Your task to perform on an android device: turn on the 12-hour format for clock Image 0: 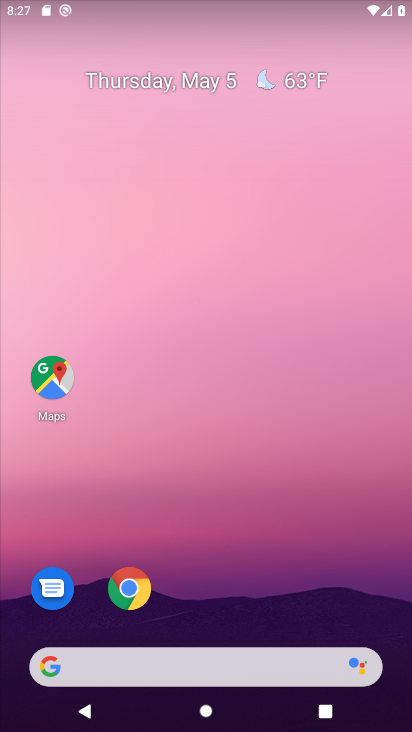
Step 0: press home button
Your task to perform on an android device: turn on the 12-hour format for clock Image 1: 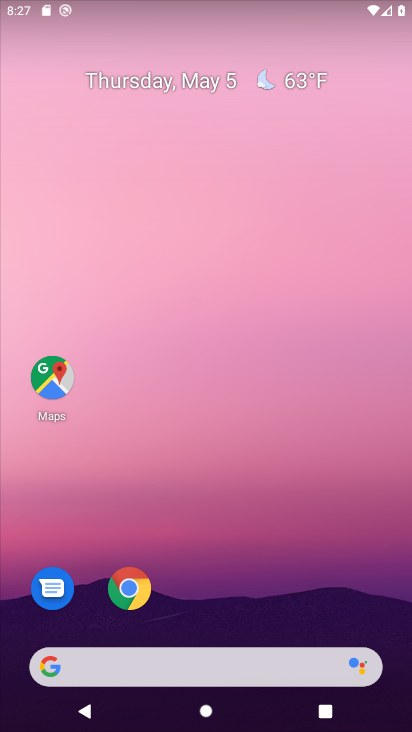
Step 1: drag from (208, 627) to (209, 102)
Your task to perform on an android device: turn on the 12-hour format for clock Image 2: 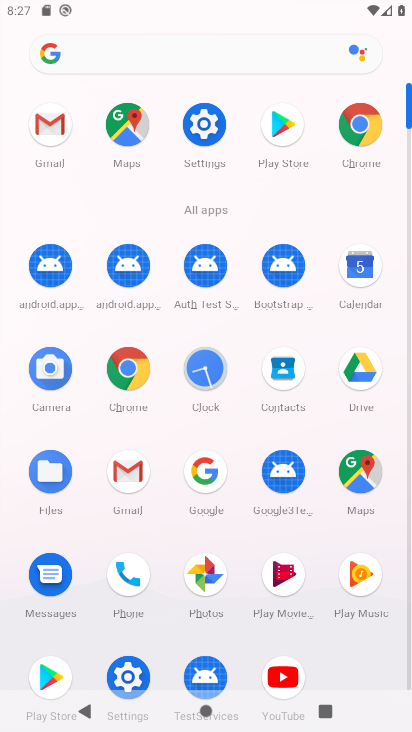
Step 2: click (204, 359)
Your task to perform on an android device: turn on the 12-hour format for clock Image 3: 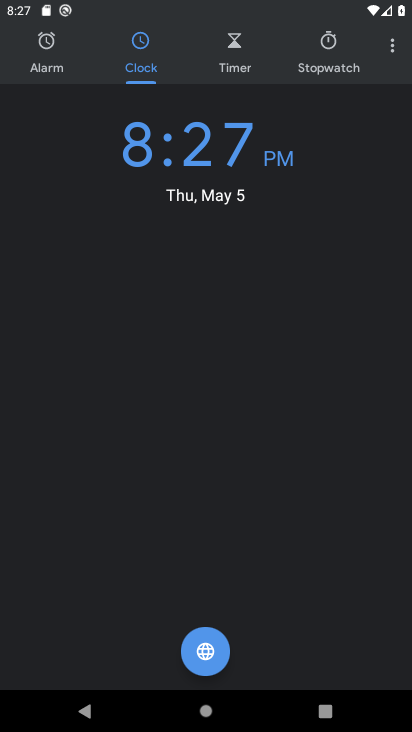
Step 3: click (396, 55)
Your task to perform on an android device: turn on the 12-hour format for clock Image 4: 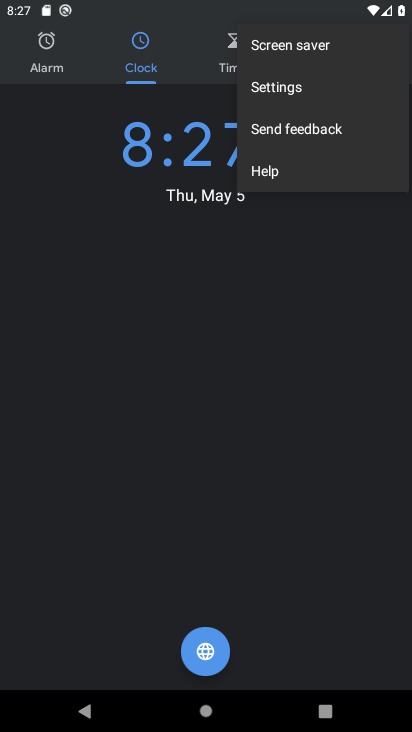
Step 4: click (303, 89)
Your task to perform on an android device: turn on the 12-hour format for clock Image 5: 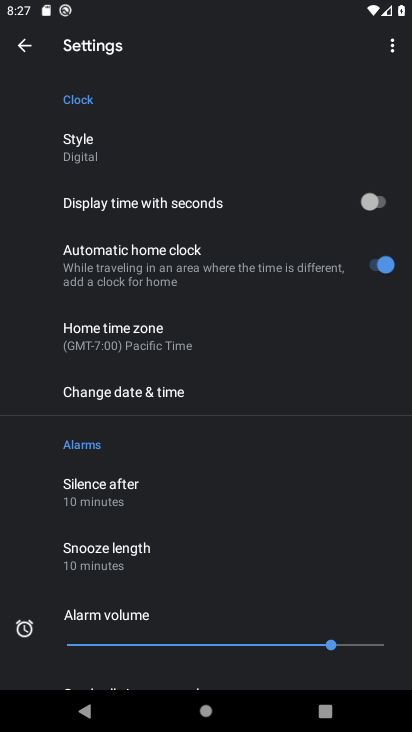
Step 5: click (195, 396)
Your task to perform on an android device: turn on the 12-hour format for clock Image 6: 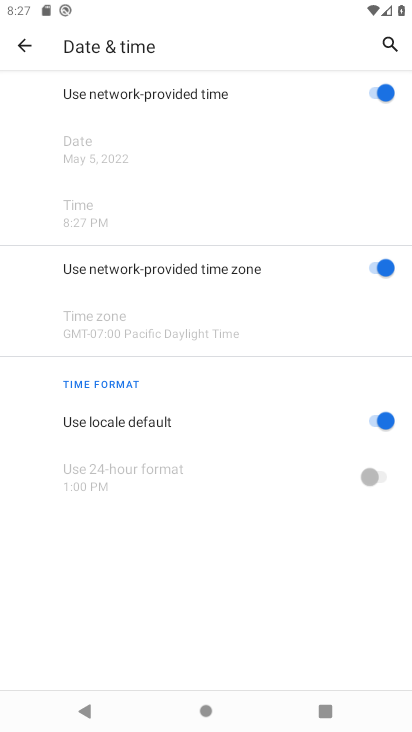
Step 6: task complete